Your task to perform on an android device: set the timer Image 0: 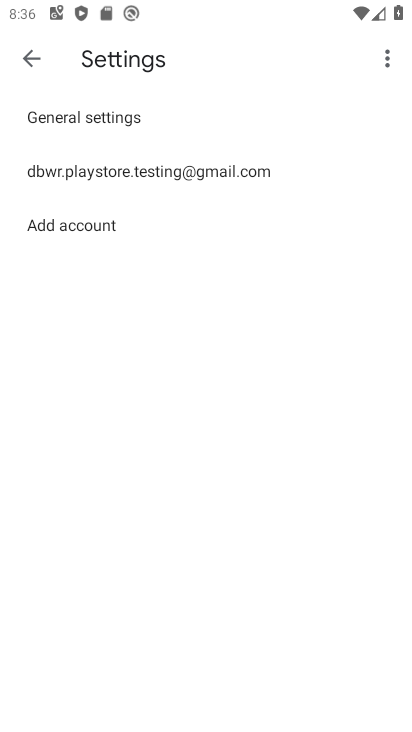
Step 0: press home button
Your task to perform on an android device: set the timer Image 1: 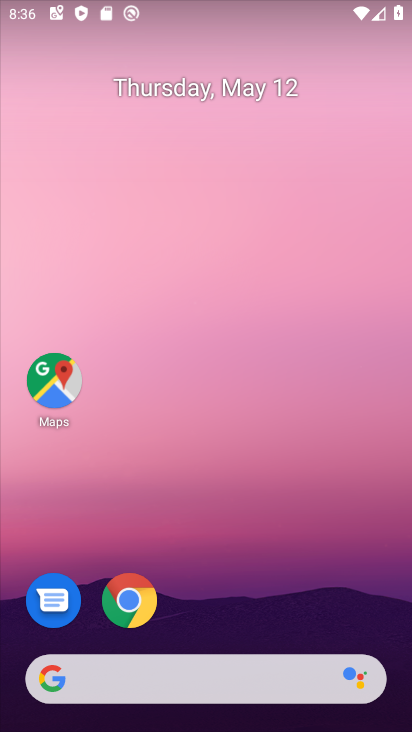
Step 1: drag from (233, 597) to (265, 114)
Your task to perform on an android device: set the timer Image 2: 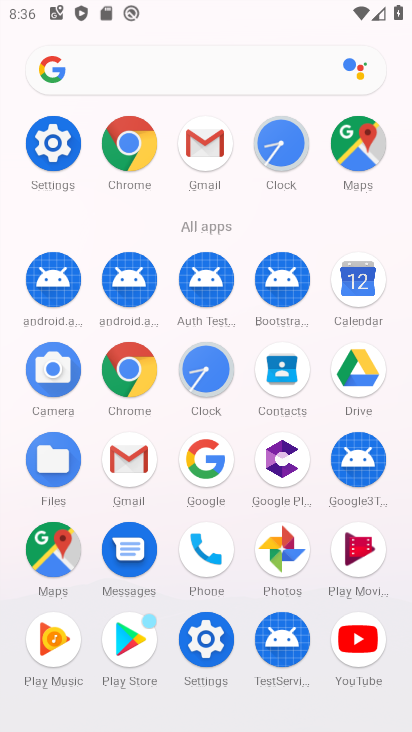
Step 2: click (287, 186)
Your task to perform on an android device: set the timer Image 3: 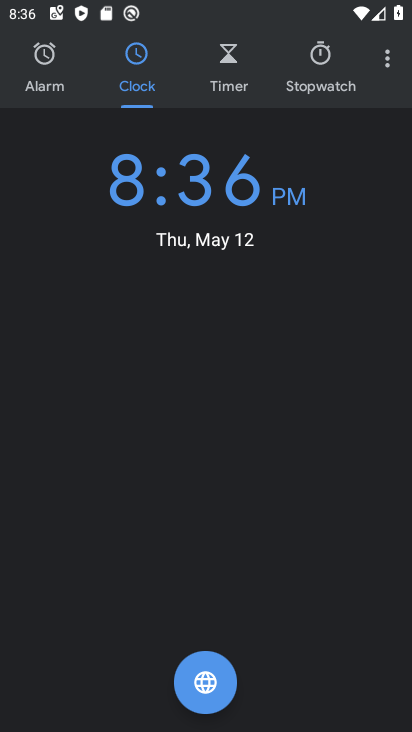
Step 3: click (229, 84)
Your task to perform on an android device: set the timer Image 4: 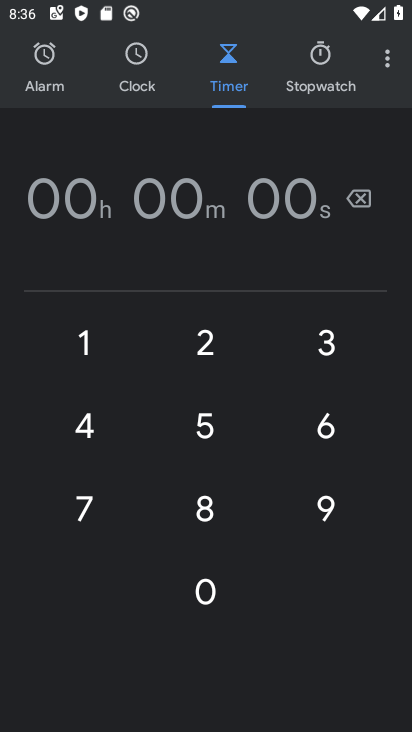
Step 4: click (87, 342)
Your task to perform on an android device: set the timer Image 5: 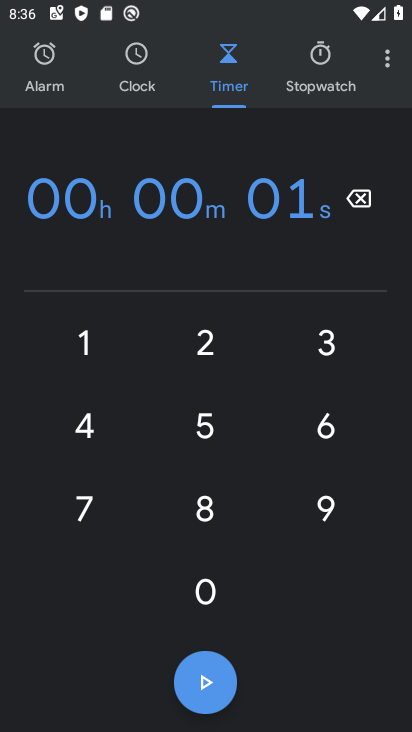
Step 5: click (211, 592)
Your task to perform on an android device: set the timer Image 6: 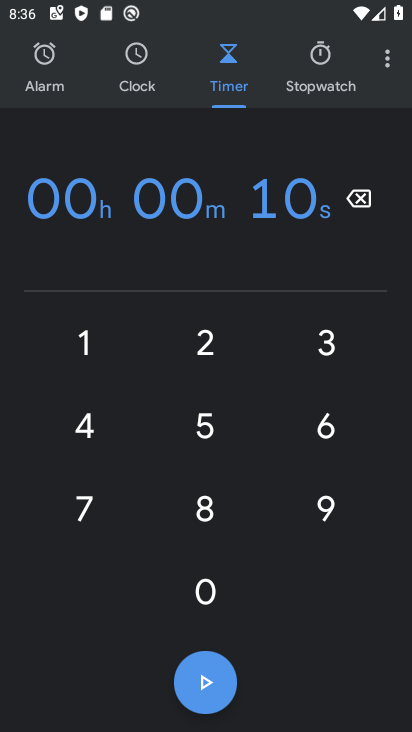
Step 6: click (206, 342)
Your task to perform on an android device: set the timer Image 7: 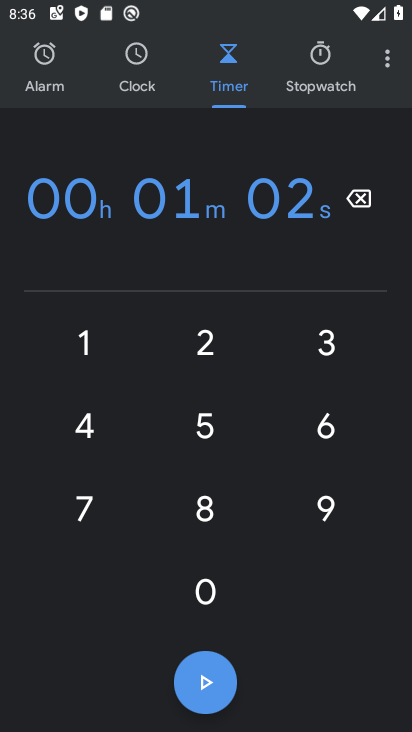
Step 7: click (204, 590)
Your task to perform on an android device: set the timer Image 8: 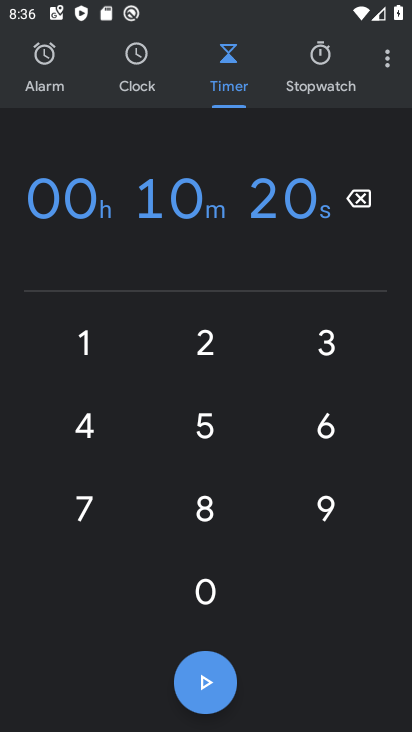
Step 8: click (188, 701)
Your task to perform on an android device: set the timer Image 9: 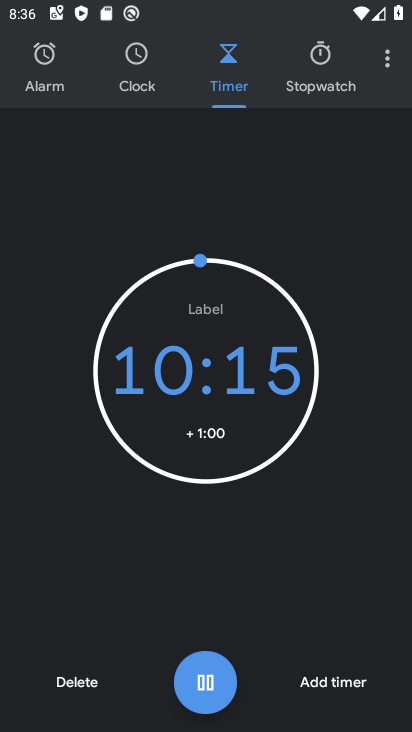
Step 9: click (353, 685)
Your task to perform on an android device: set the timer Image 10: 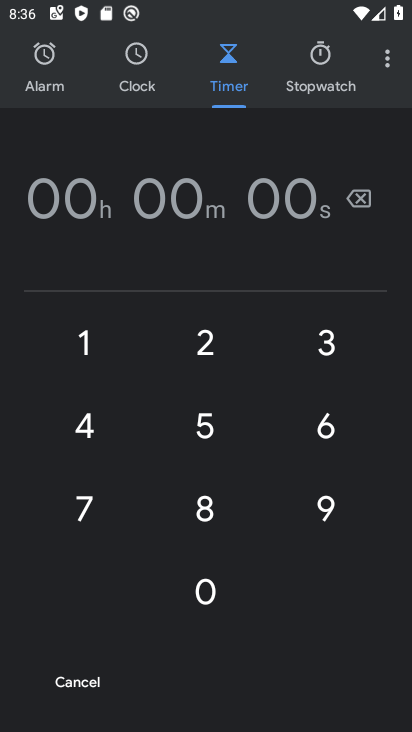
Step 10: task complete